Your task to perform on an android device: turn off javascript in the chrome app Image 0: 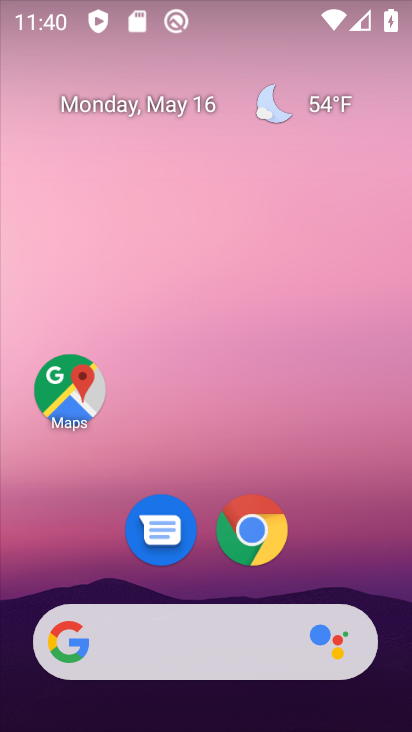
Step 0: drag from (393, 585) to (404, 138)
Your task to perform on an android device: turn off javascript in the chrome app Image 1: 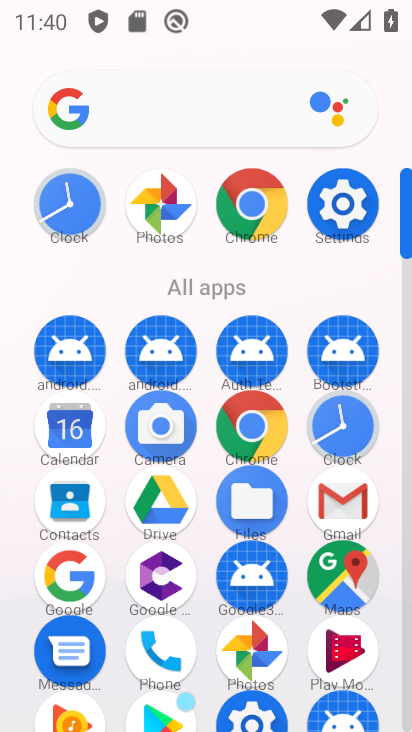
Step 1: click (256, 425)
Your task to perform on an android device: turn off javascript in the chrome app Image 2: 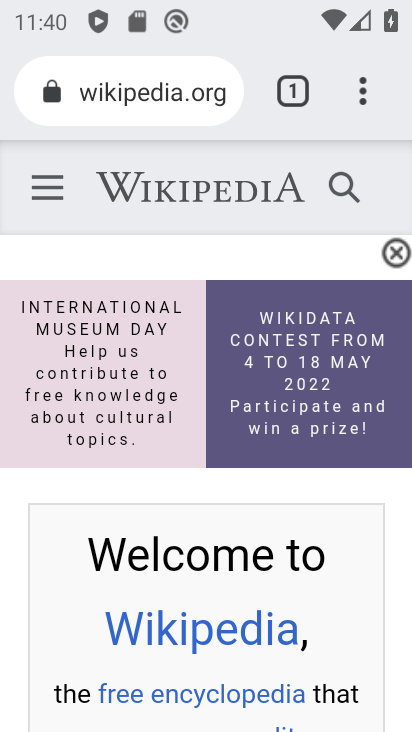
Step 2: click (364, 98)
Your task to perform on an android device: turn off javascript in the chrome app Image 3: 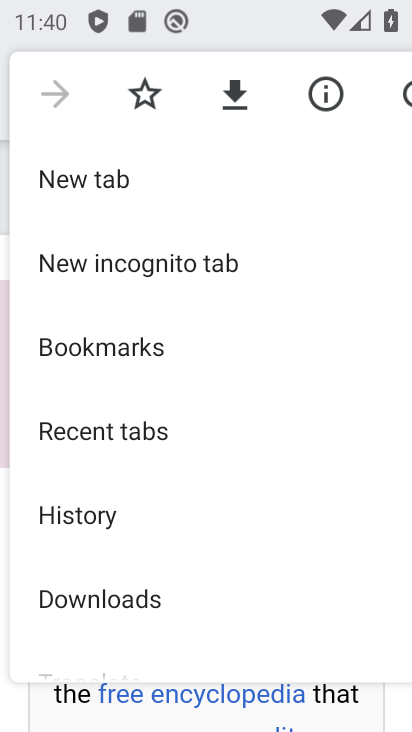
Step 3: drag from (240, 579) to (292, 446)
Your task to perform on an android device: turn off javascript in the chrome app Image 4: 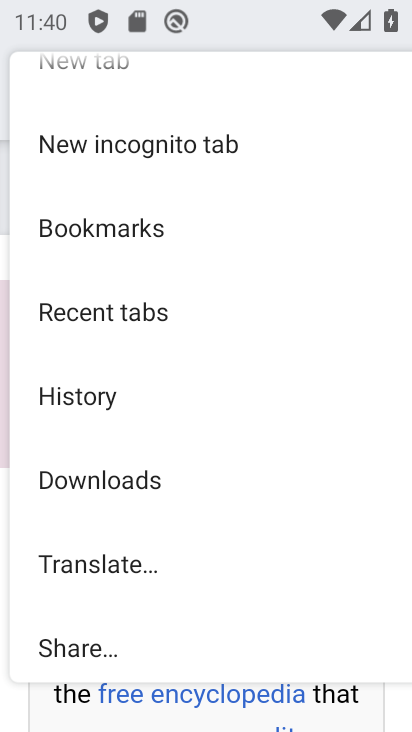
Step 4: drag from (264, 590) to (293, 461)
Your task to perform on an android device: turn off javascript in the chrome app Image 5: 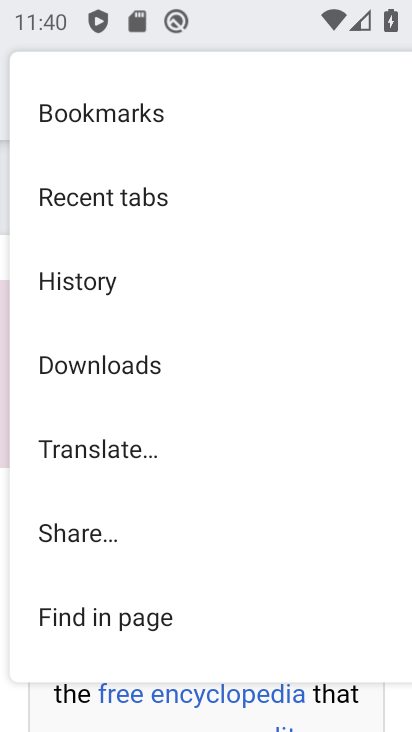
Step 5: drag from (307, 564) to (336, 460)
Your task to perform on an android device: turn off javascript in the chrome app Image 6: 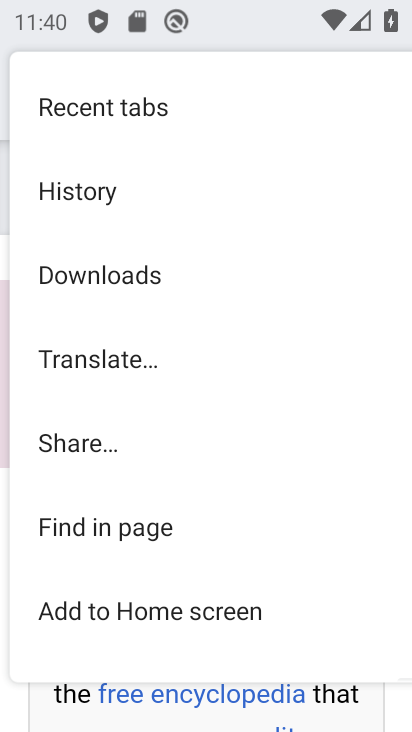
Step 6: drag from (311, 540) to (337, 467)
Your task to perform on an android device: turn off javascript in the chrome app Image 7: 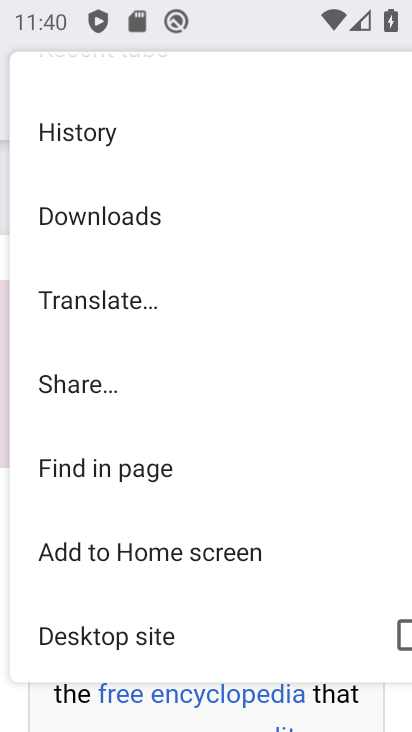
Step 7: drag from (311, 610) to (324, 496)
Your task to perform on an android device: turn off javascript in the chrome app Image 8: 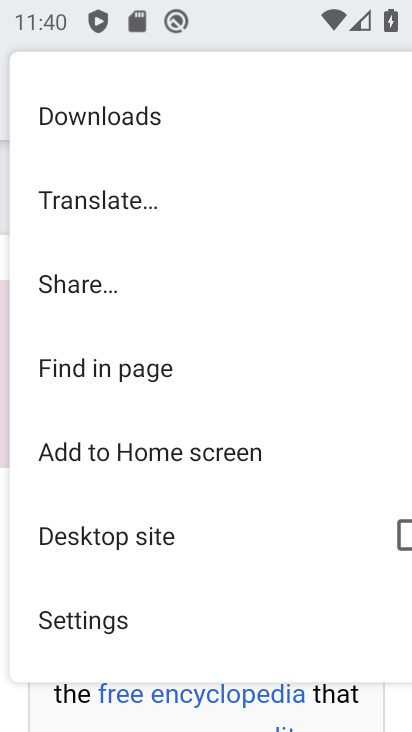
Step 8: drag from (297, 609) to (299, 506)
Your task to perform on an android device: turn off javascript in the chrome app Image 9: 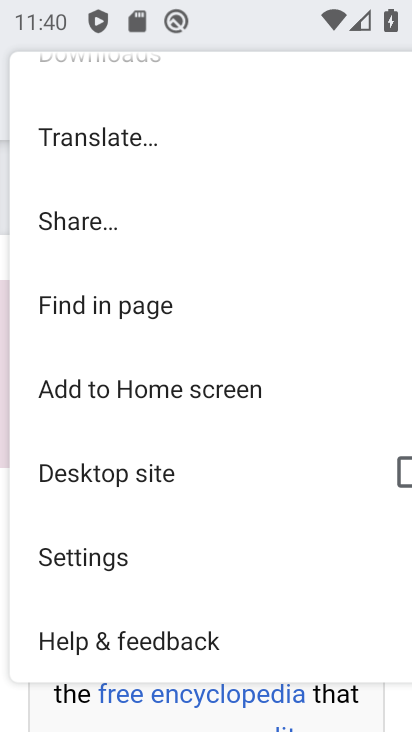
Step 9: click (100, 563)
Your task to perform on an android device: turn off javascript in the chrome app Image 10: 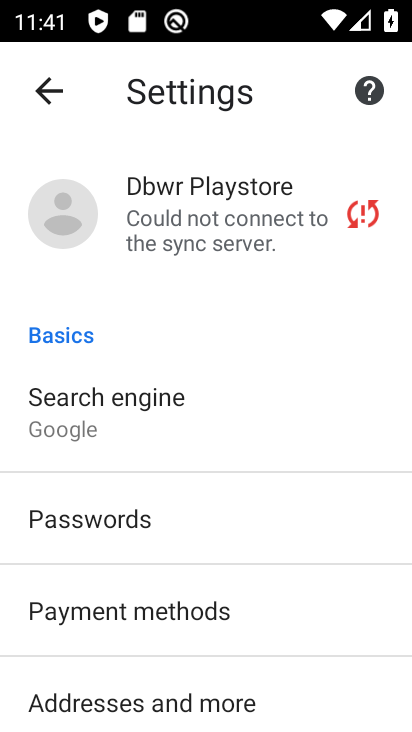
Step 10: drag from (142, 582) to (173, 504)
Your task to perform on an android device: turn off javascript in the chrome app Image 11: 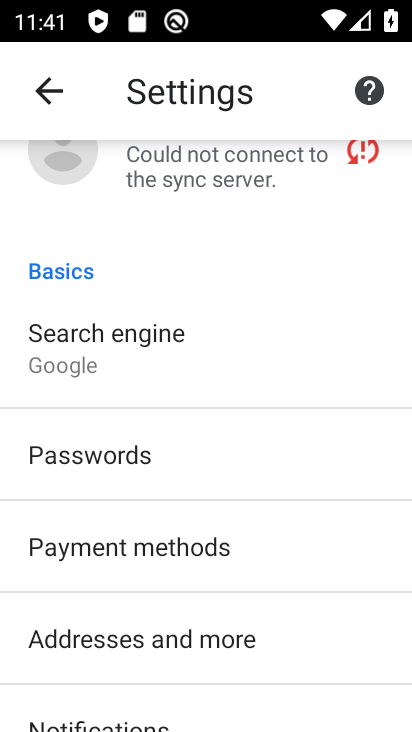
Step 11: drag from (270, 650) to (280, 555)
Your task to perform on an android device: turn off javascript in the chrome app Image 12: 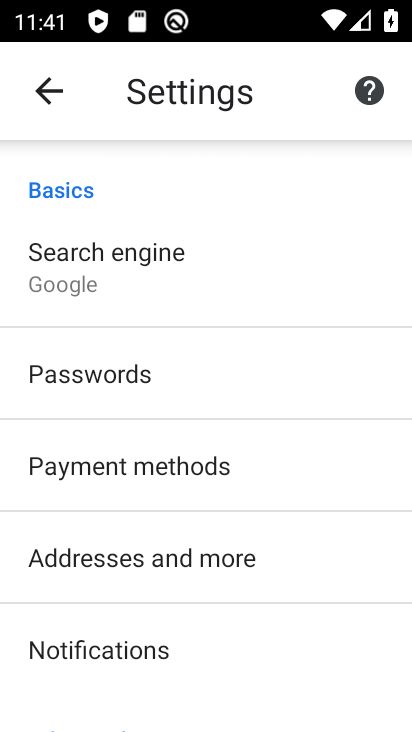
Step 12: drag from (291, 666) to (272, 574)
Your task to perform on an android device: turn off javascript in the chrome app Image 13: 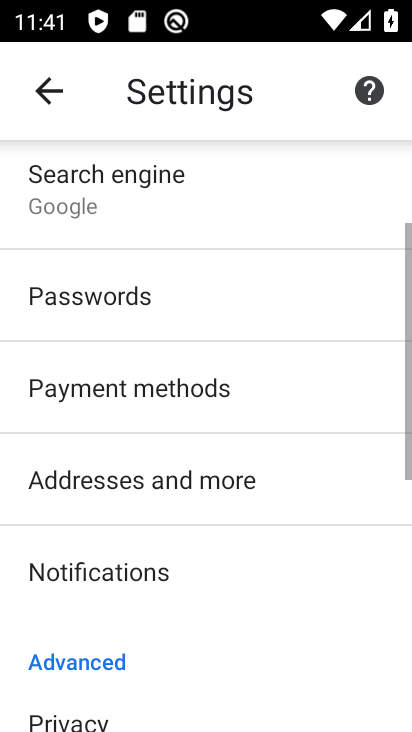
Step 13: drag from (280, 675) to (307, 597)
Your task to perform on an android device: turn off javascript in the chrome app Image 14: 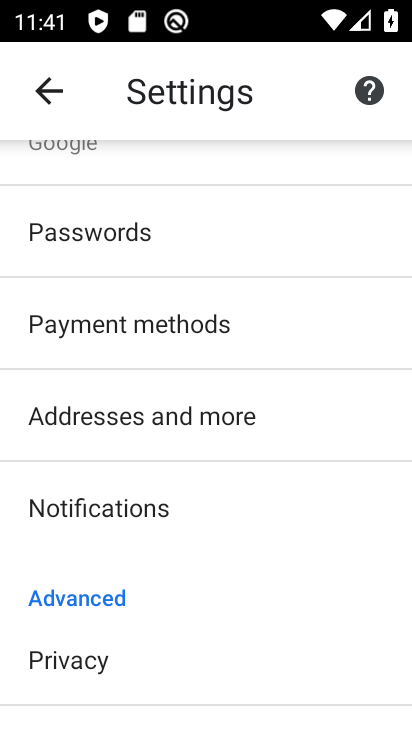
Step 14: drag from (299, 681) to (319, 591)
Your task to perform on an android device: turn off javascript in the chrome app Image 15: 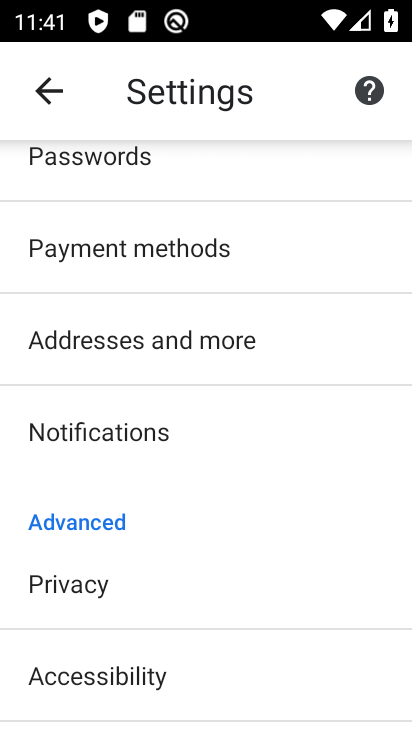
Step 15: drag from (313, 676) to (315, 608)
Your task to perform on an android device: turn off javascript in the chrome app Image 16: 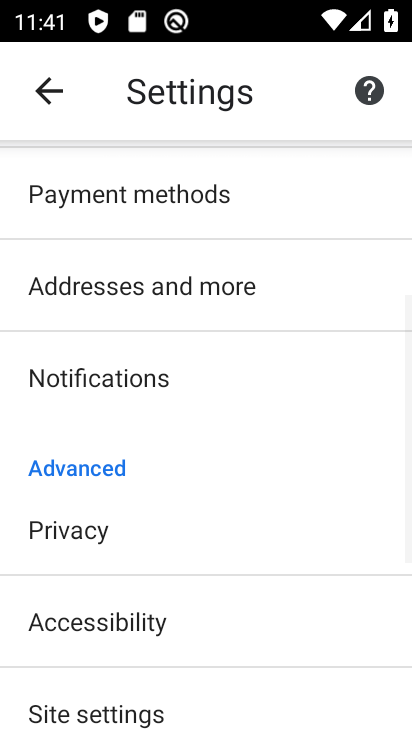
Step 16: drag from (297, 673) to (293, 581)
Your task to perform on an android device: turn off javascript in the chrome app Image 17: 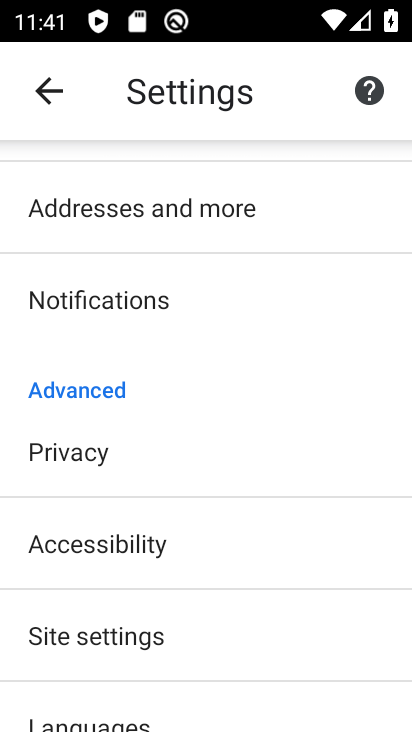
Step 17: drag from (311, 609) to (339, 480)
Your task to perform on an android device: turn off javascript in the chrome app Image 18: 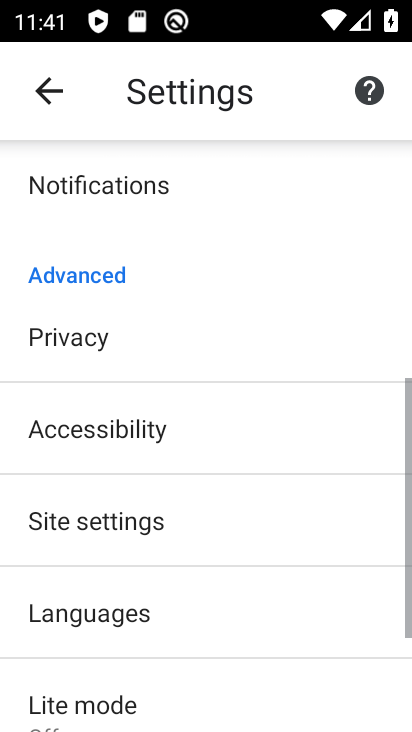
Step 18: drag from (341, 597) to (347, 509)
Your task to perform on an android device: turn off javascript in the chrome app Image 19: 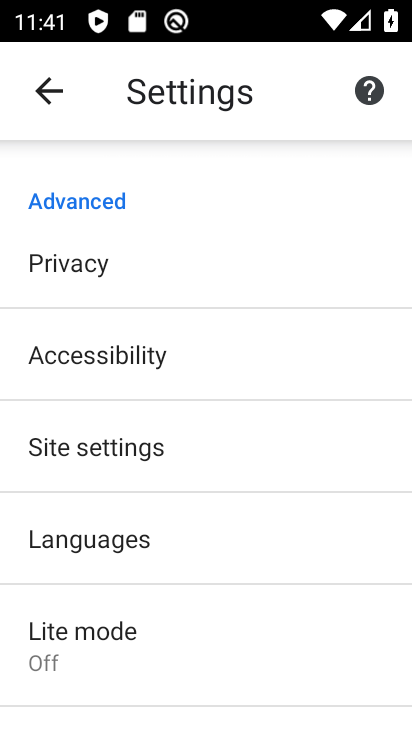
Step 19: click (206, 452)
Your task to perform on an android device: turn off javascript in the chrome app Image 20: 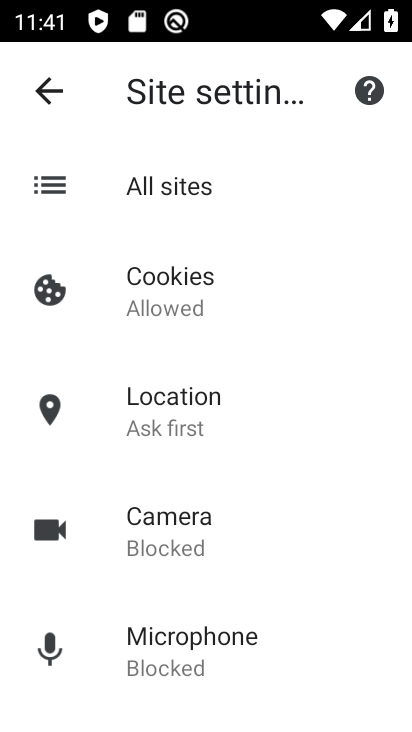
Step 20: drag from (301, 634) to (310, 493)
Your task to perform on an android device: turn off javascript in the chrome app Image 21: 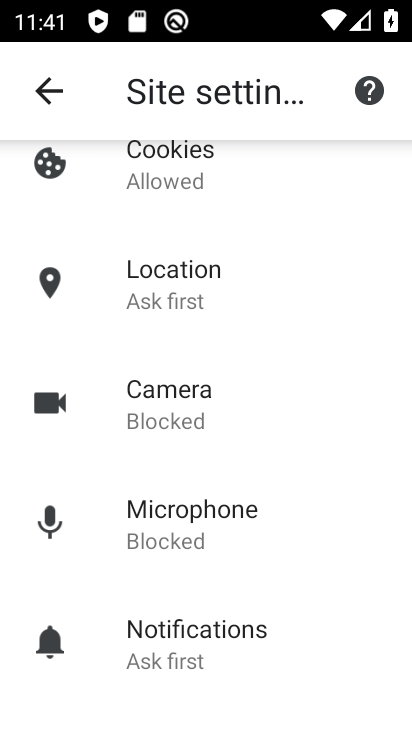
Step 21: drag from (292, 662) to (290, 543)
Your task to perform on an android device: turn off javascript in the chrome app Image 22: 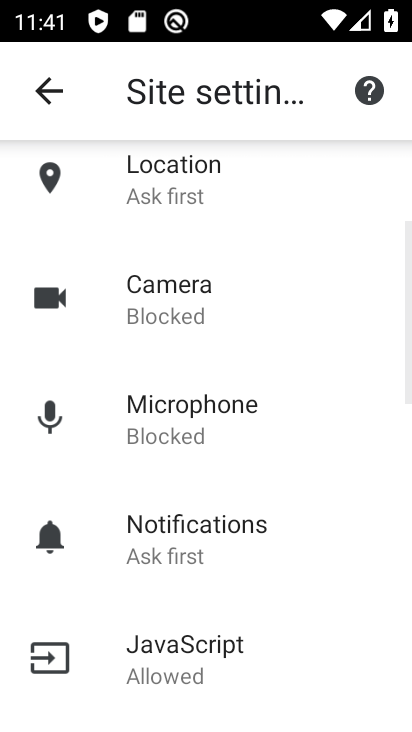
Step 22: drag from (276, 691) to (291, 528)
Your task to perform on an android device: turn off javascript in the chrome app Image 23: 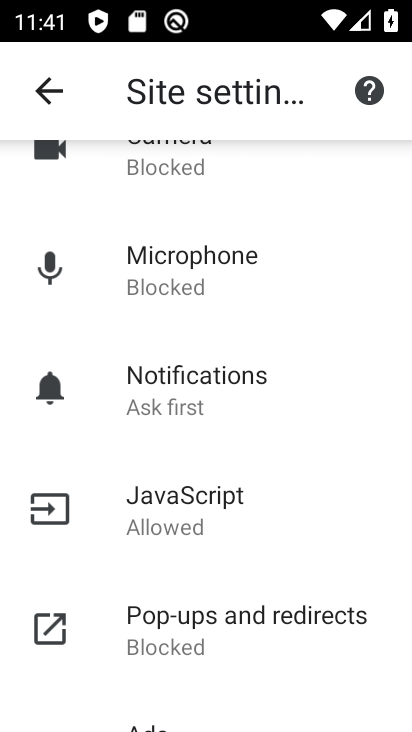
Step 23: drag from (262, 689) to (271, 541)
Your task to perform on an android device: turn off javascript in the chrome app Image 24: 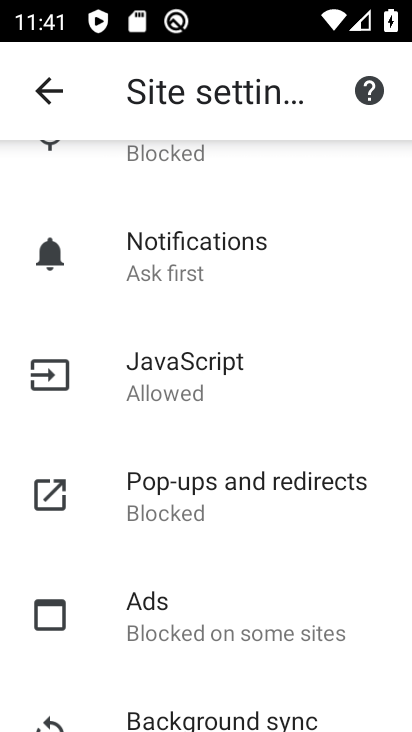
Step 24: click (191, 382)
Your task to perform on an android device: turn off javascript in the chrome app Image 25: 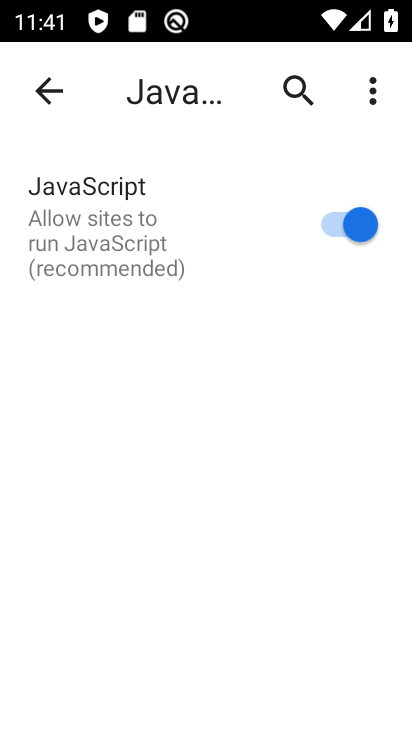
Step 25: click (360, 226)
Your task to perform on an android device: turn off javascript in the chrome app Image 26: 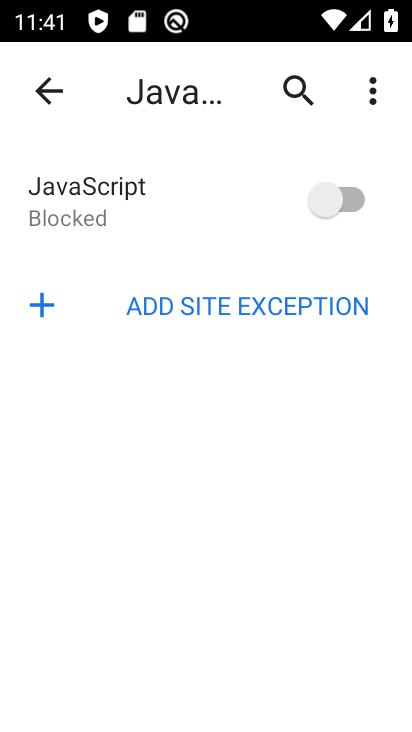
Step 26: task complete